Your task to perform on an android device: manage bookmarks in the chrome app Image 0: 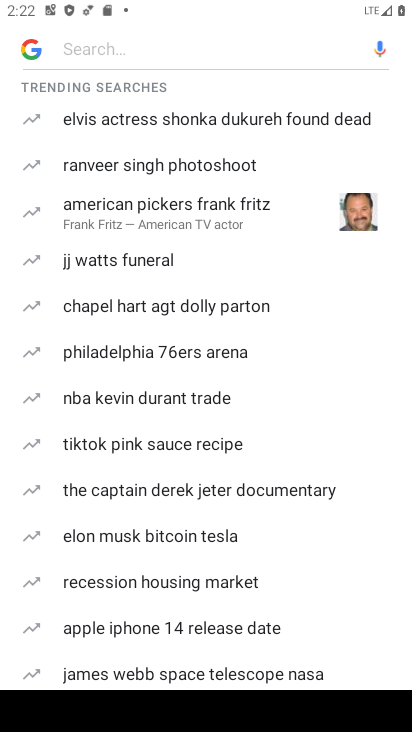
Step 0: press back button
Your task to perform on an android device: manage bookmarks in the chrome app Image 1: 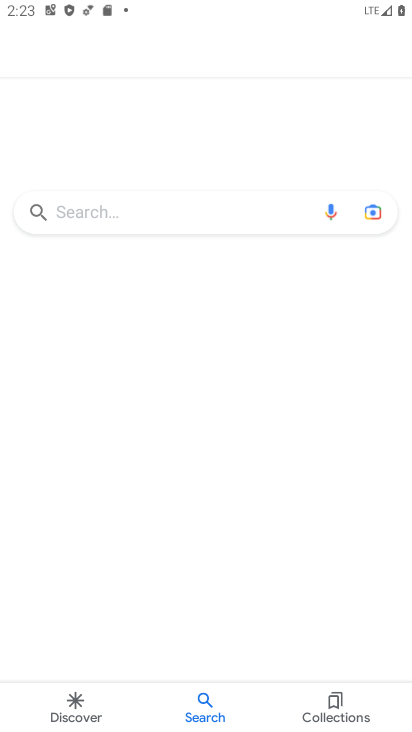
Step 1: press back button
Your task to perform on an android device: manage bookmarks in the chrome app Image 2: 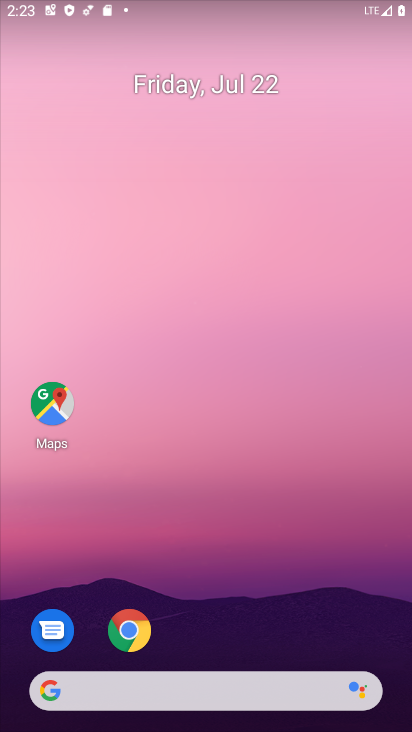
Step 2: click (114, 631)
Your task to perform on an android device: manage bookmarks in the chrome app Image 3: 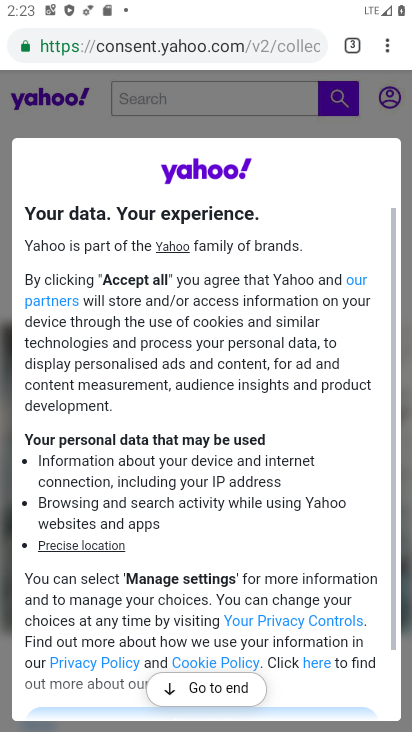
Step 3: click (387, 41)
Your task to perform on an android device: manage bookmarks in the chrome app Image 4: 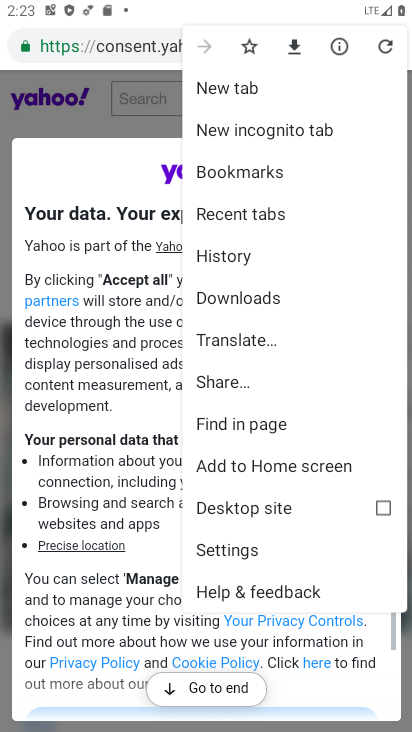
Step 4: click (204, 167)
Your task to perform on an android device: manage bookmarks in the chrome app Image 5: 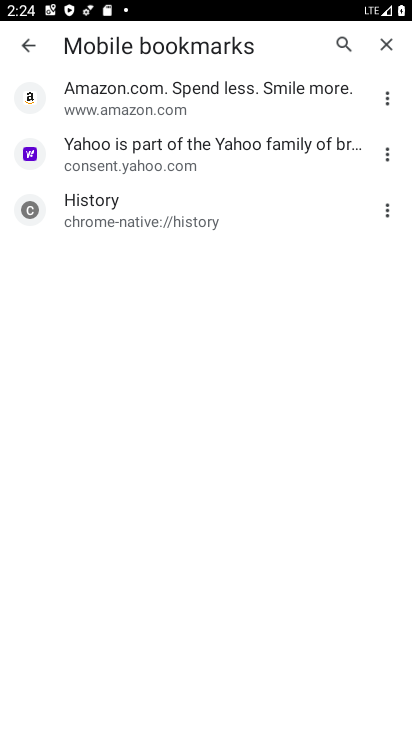
Step 5: task complete